Your task to perform on an android device: check android version Image 0: 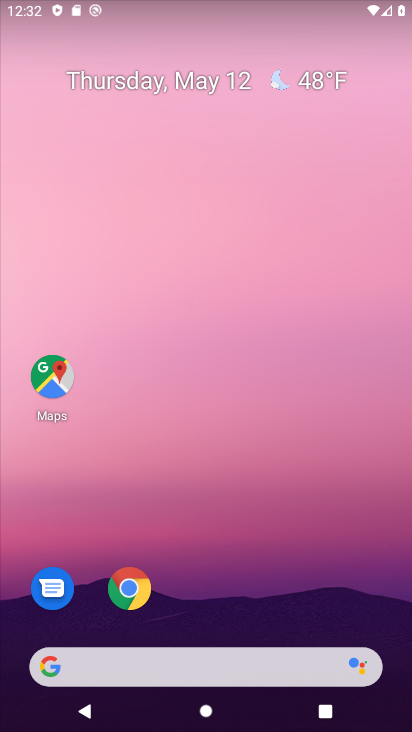
Step 0: drag from (310, 590) to (113, 91)
Your task to perform on an android device: check android version Image 1: 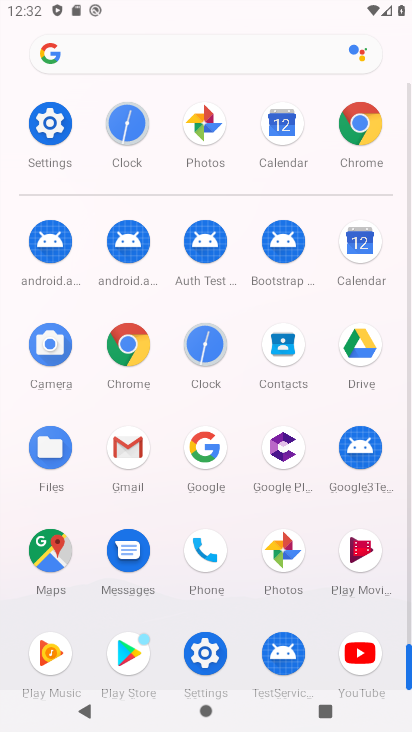
Step 1: click (34, 131)
Your task to perform on an android device: check android version Image 2: 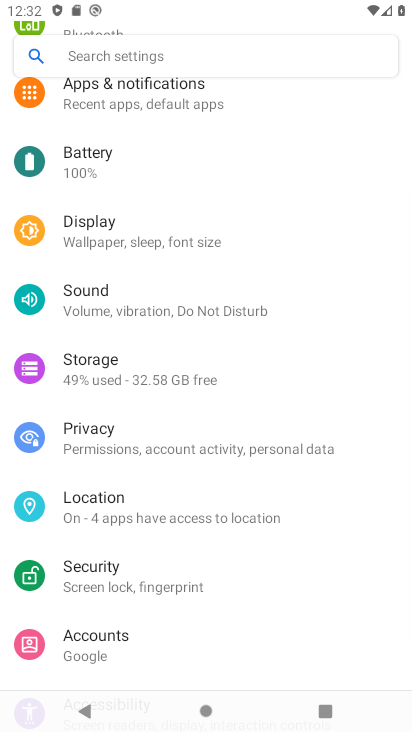
Step 2: drag from (232, 466) to (162, 212)
Your task to perform on an android device: check android version Image 3: 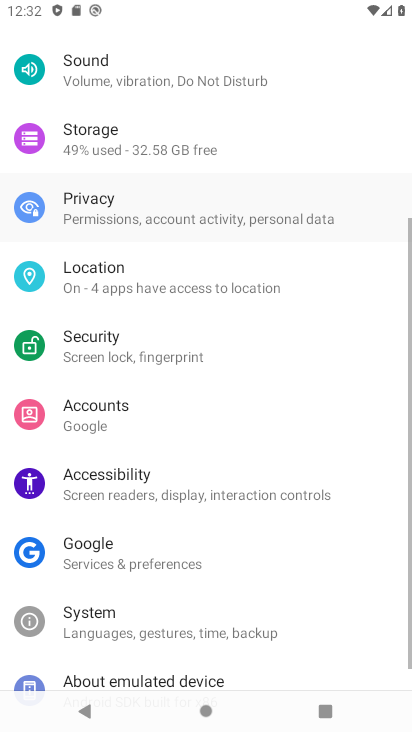
Step 3: drag from (137, 529) to (90, 142)
Your task to perform on an android device: check android version Image 4: 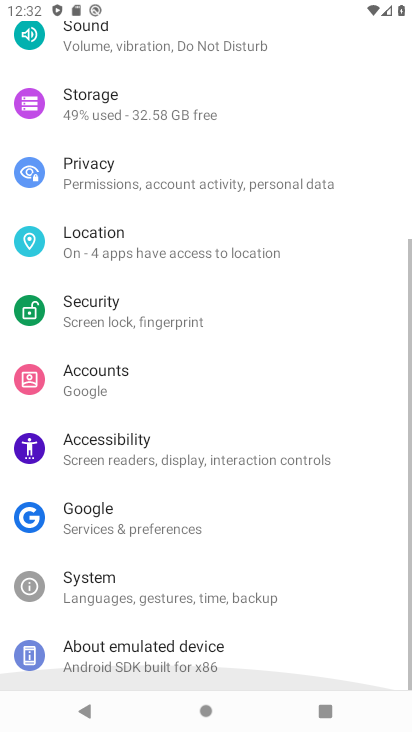
Step 4: drag from (241, 504) to (241, 82)
Your task to perform on an android device: check android version Image 5: 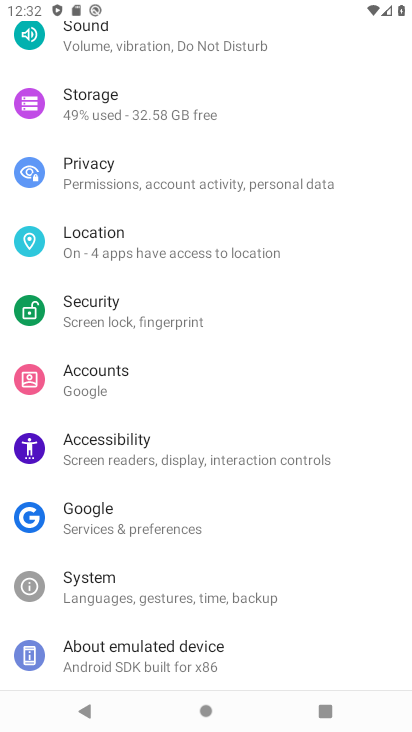
Step 5: click (121, 646)
Your task to perform on an android device: check android version Image 6: 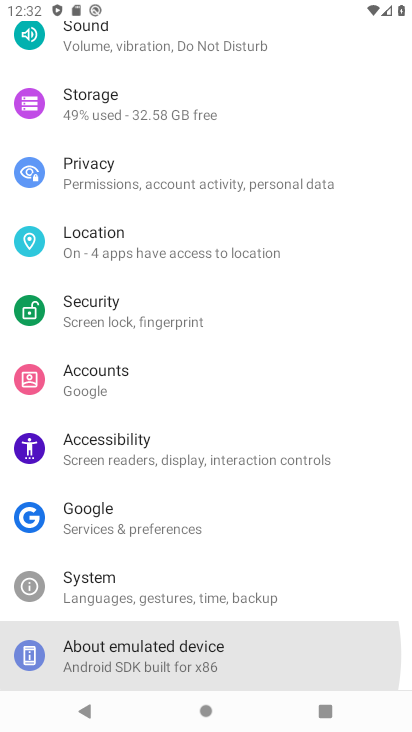
Step 6: click (129, 640)
Your task to perform on an android device: check android version Image 7: 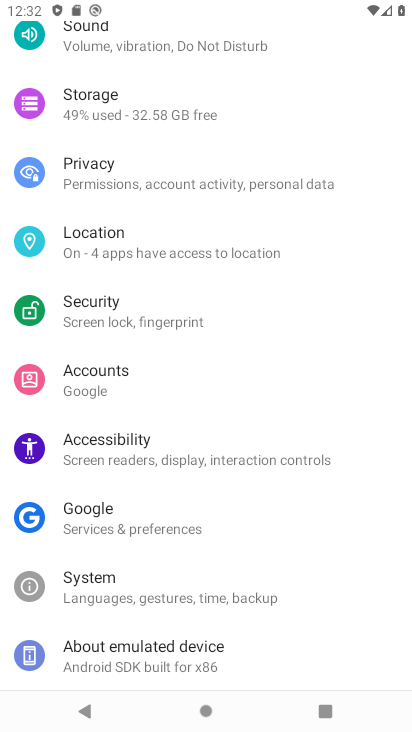
Step 7: click (130, 639)
Your task to perform on an android device: check android version Image 8: 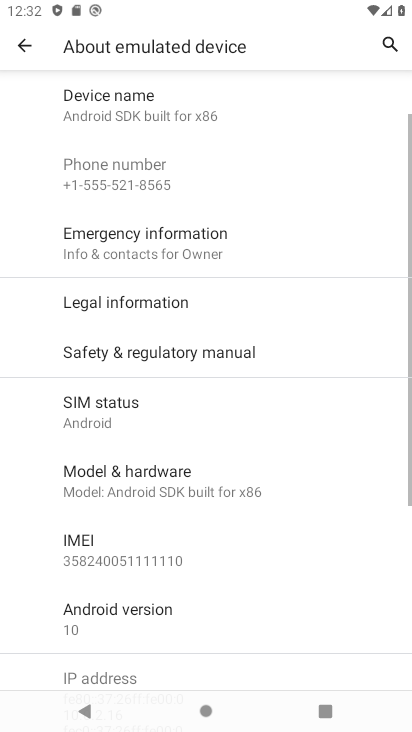
Step 8: task complete